Your task to perform on an android device: open a new tab in the chrome app Image 0: 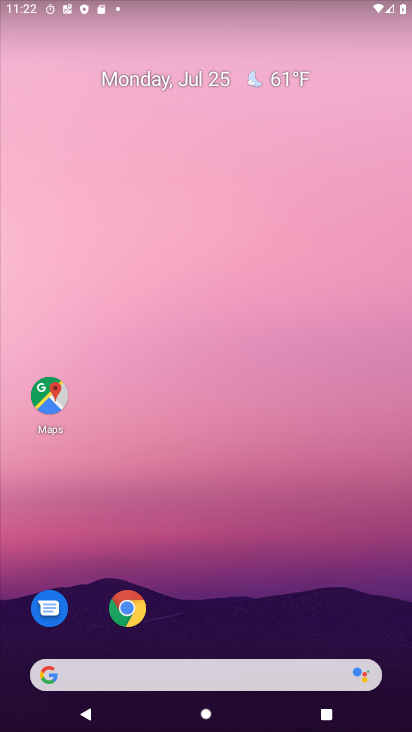
Step 0: drag from (201, 562) to (175, 189)
Your task to perform on an android device: open a new tab in the chrome app Image 1: 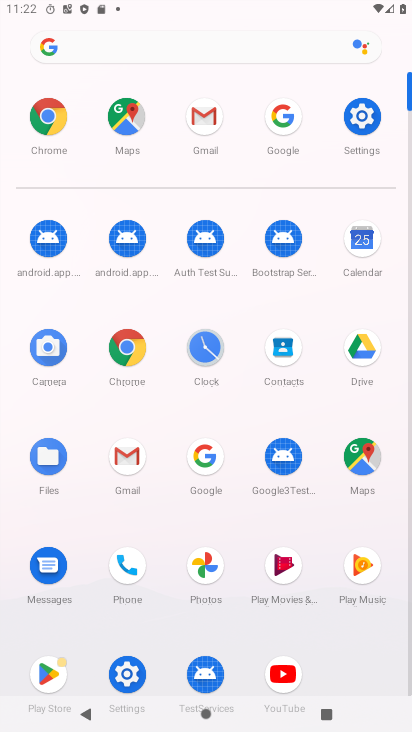
Step 1: click (44, 133)
Your task to perform on an android device: open a new tab in the chrome app Image 2: 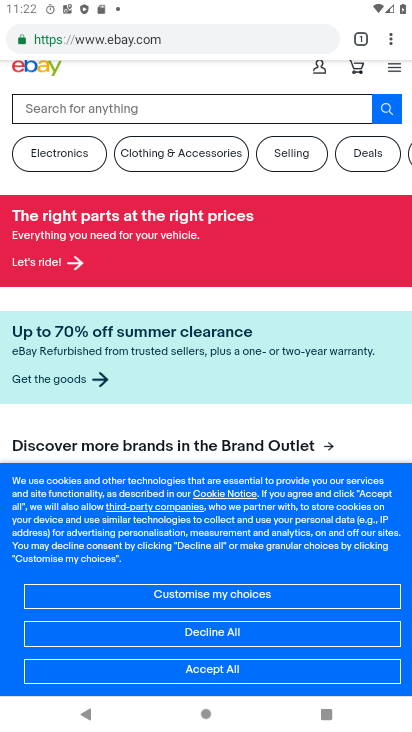
Step 2: task complete